Your task to perform on an android device: Turn off the flashlight Image 0: 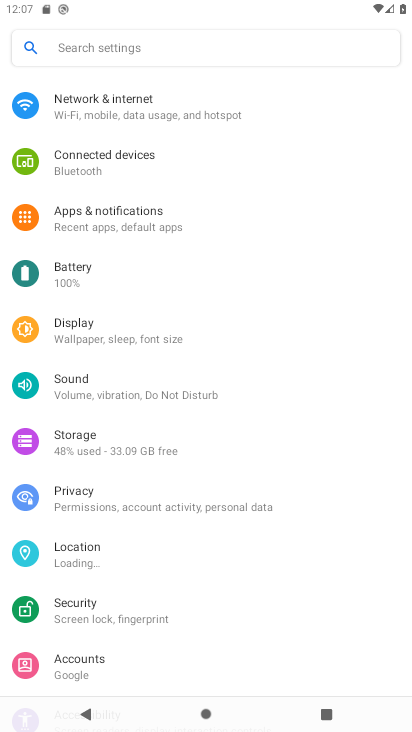
Step 0: press home button
Your task to perform on an android device: Turn off the flashlight Image 1: 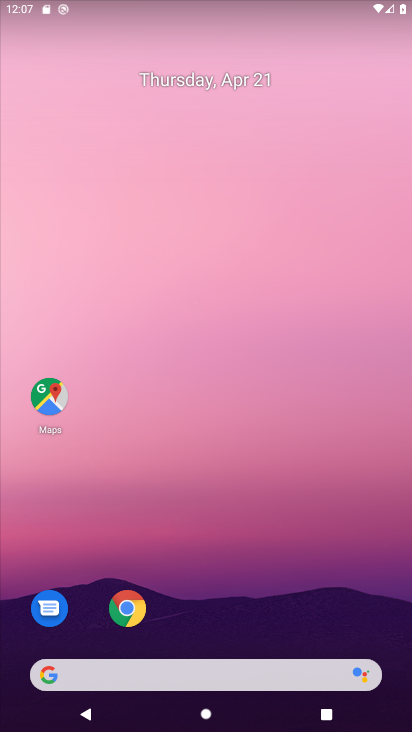
Step 1: drag from (289, 457) to (321, 157)
Your task to perform on an android device: Turn off the flashlight Image 2: 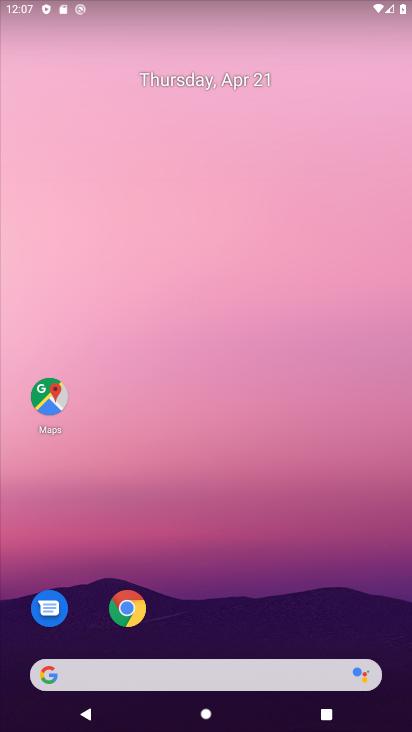
Step 2: drag from (311, 546) to (317, 91)
Your task to perform on an android device: Turn off the flashlight Image 3: 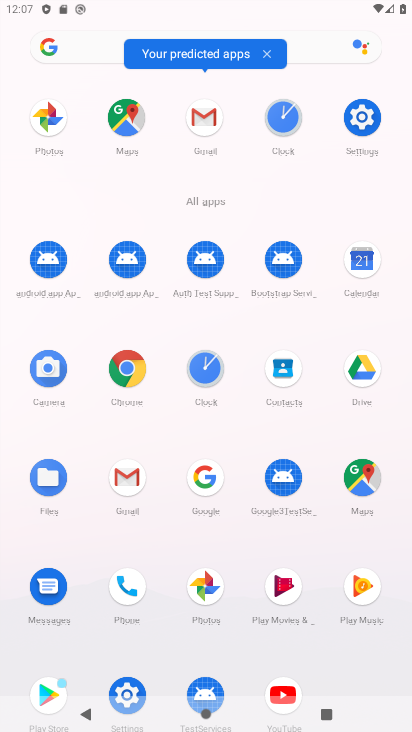
Step 3: click (364, 119)
Your task to perform on an android device: Turn off the flashlight Image 4: 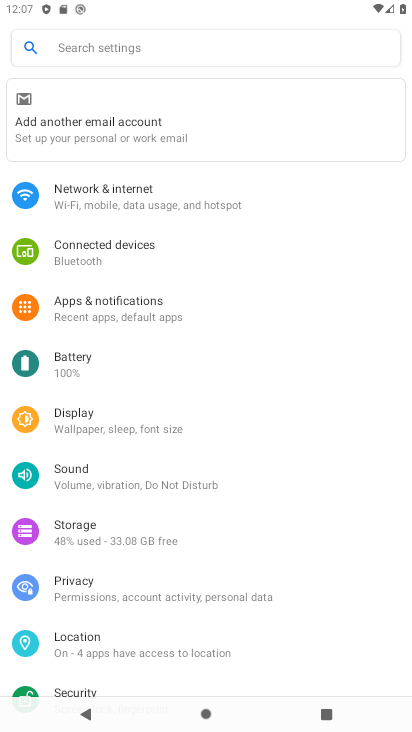
Step 4: click (129, 51)
Your task to perform on an android device: Turn off the flashlight Image 5: 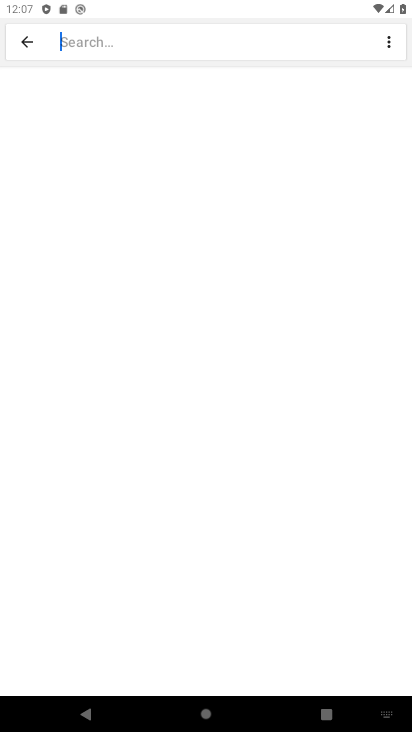
Step 5: type "flashlight"
Your task to perform on an android device: Turn off the flashlight Image 6: 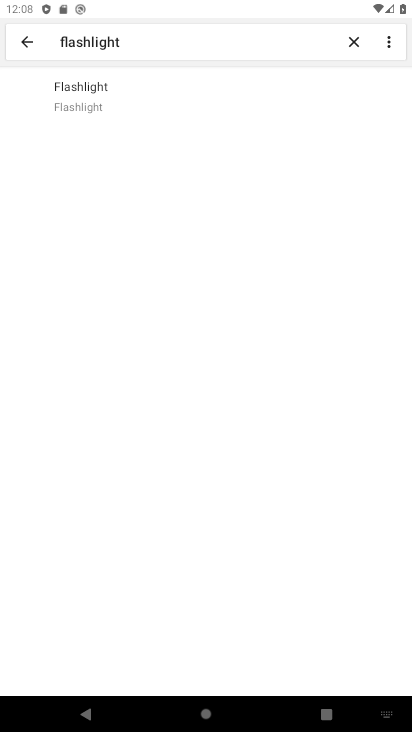
Step 6: click (108, 93)
Your task to perform on an android device: Turn off the flashlight Image 7: 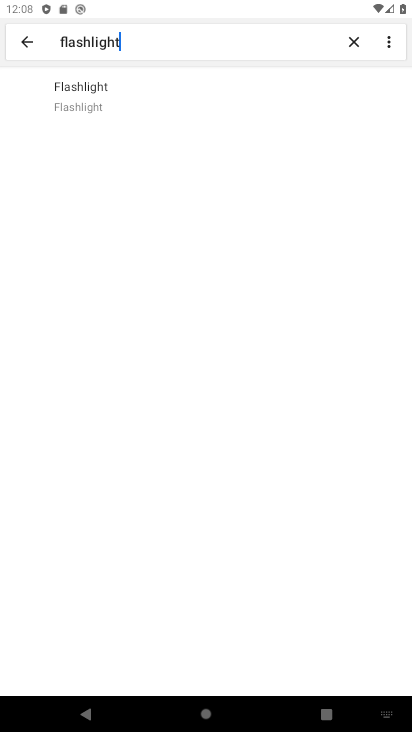
Step 7: task complete